Your task to perform on an android device: open chrome privacy settings Image 0: 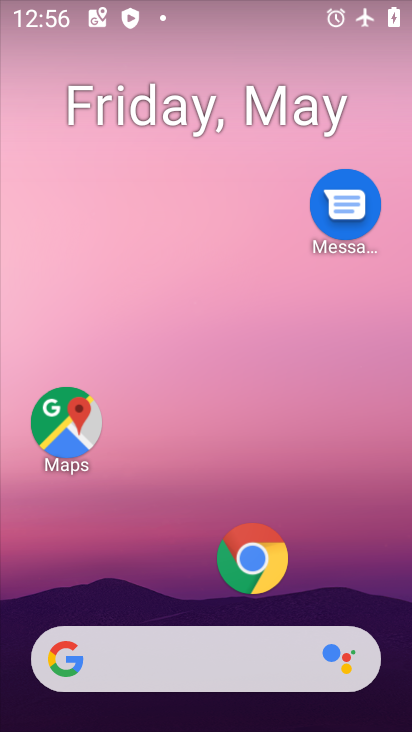
Step 0: drag from (199, 565) to (190, 135)
Your task to perform on an android device: open chrome privacy settings Image 1: 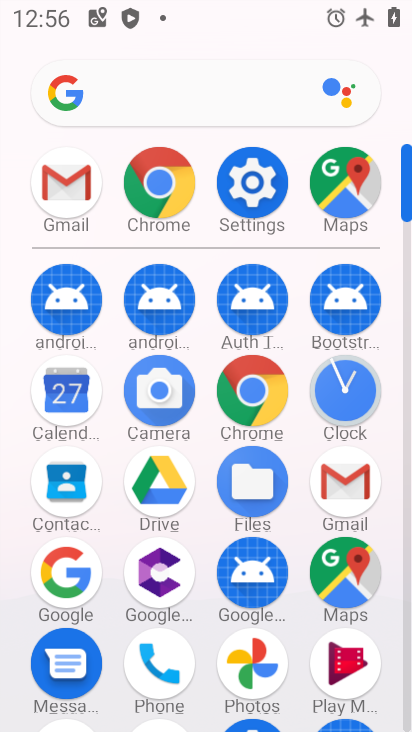
Step 1: click (171, 193)
Your task to perform on an android device: open chrome privacy settings Image 2: 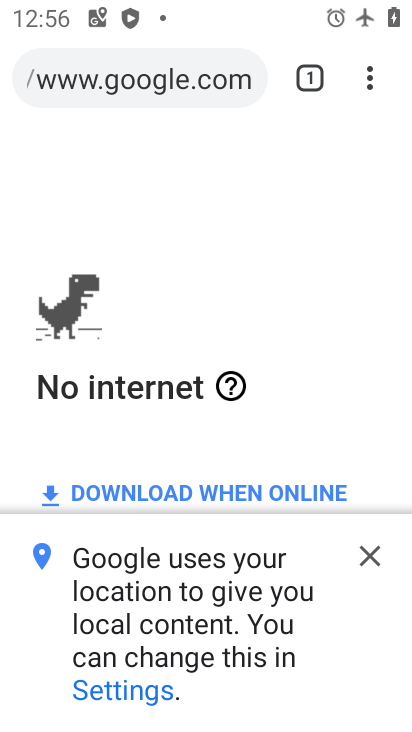
Step 2: click (375, 75)
Your task to perform on an android device: open chrome privacy settings Image 3: 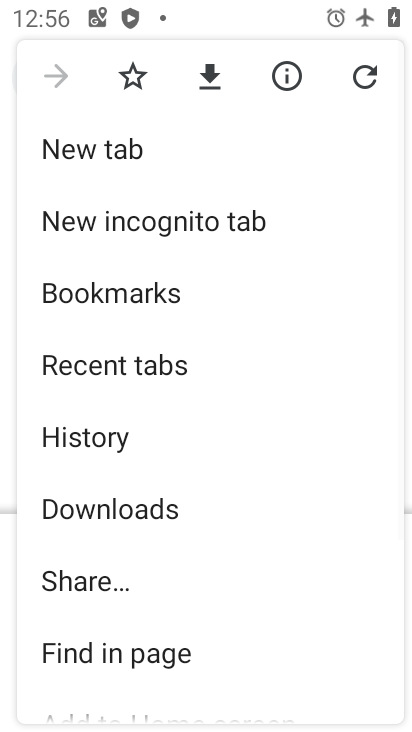
Step 3: drag from (141, 502) to (177, 138)
Your task to perform on an android device: open chrome privacy settings Image 4: 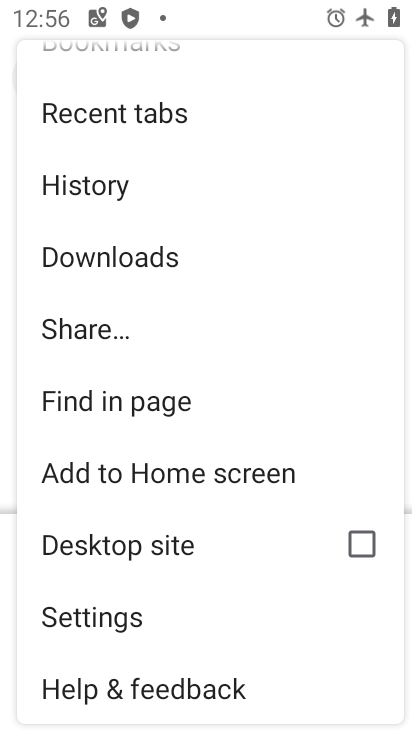
Step 4: click (141, 626)
Your task to perform on an android device: open chrome privacy settings Image 5: 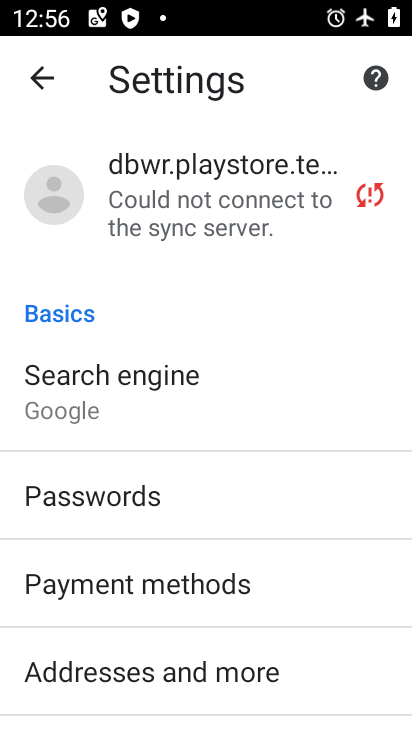
Step 5: drag from (171, 563) to (186, 188)
Your task to perform on an android device: open chrome privacy settings Image 6: 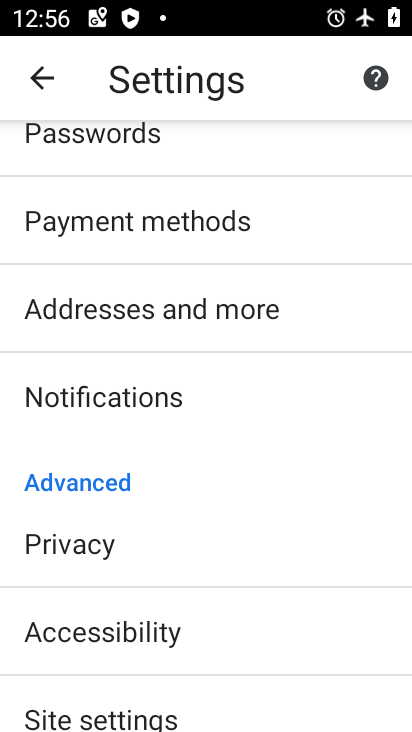
Step 6: click (86, 549)
Your task to perform on an android device: open chrome privacy settings Image 7: 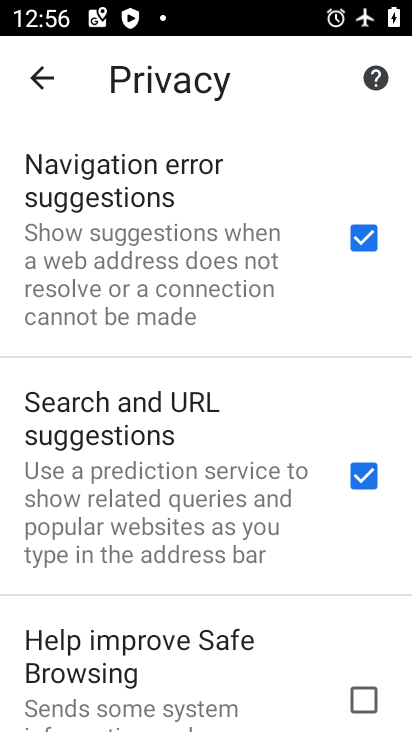
Step 7: task complete